Your task to perform on an android device: Open Yahoo.com Image 0: 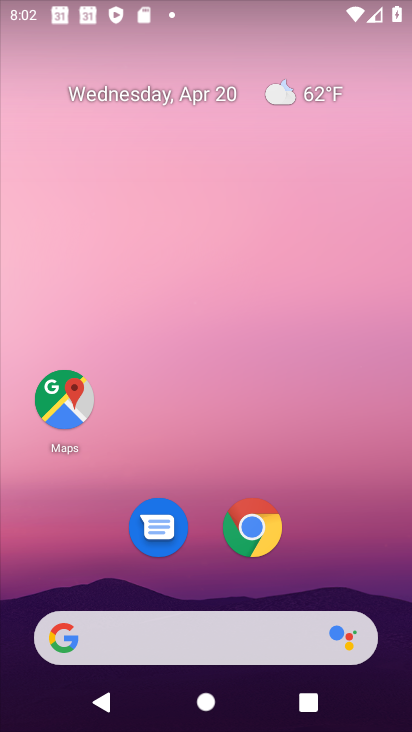
Step 0: click (259, 526)
Your task to perform on an android device: Open Yahoo.com Image 1: 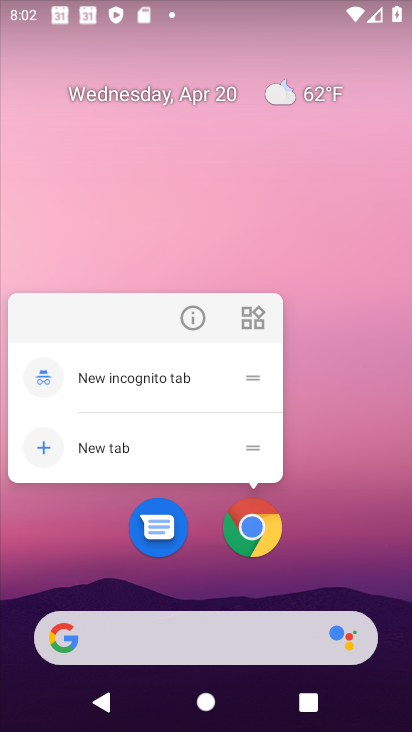
Step 1: click (252, 528)
Your task to perform on an android device: Open Yahoo.com Image 2: 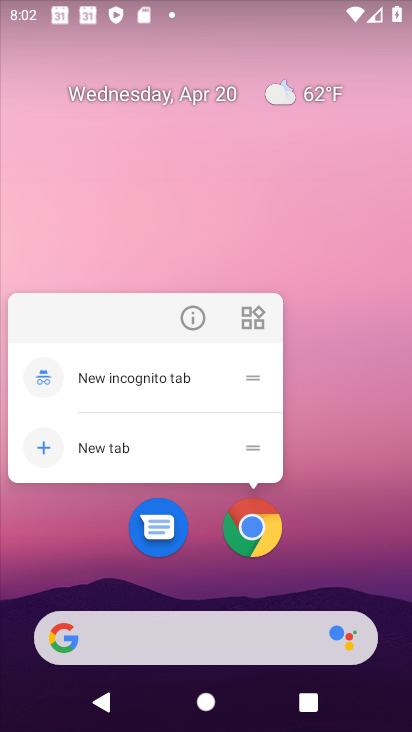
Step 2: click (253, 535)
Your task to perform on an android device: Open Yahoo.com Image 3: 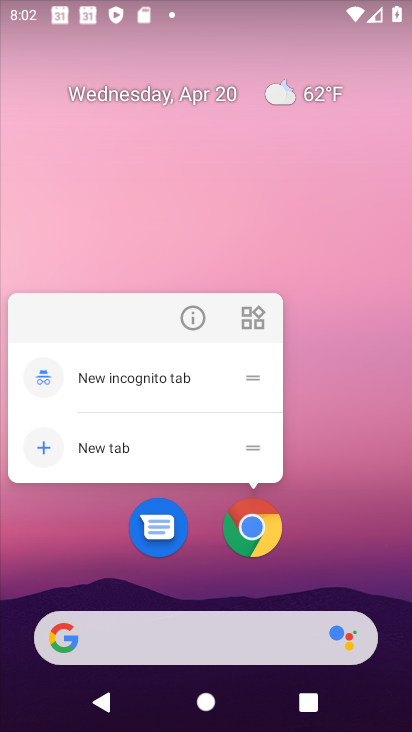
Step 3: click (254, 536)
Your task to perform on an android device: Open Yahoo.com Image 4: 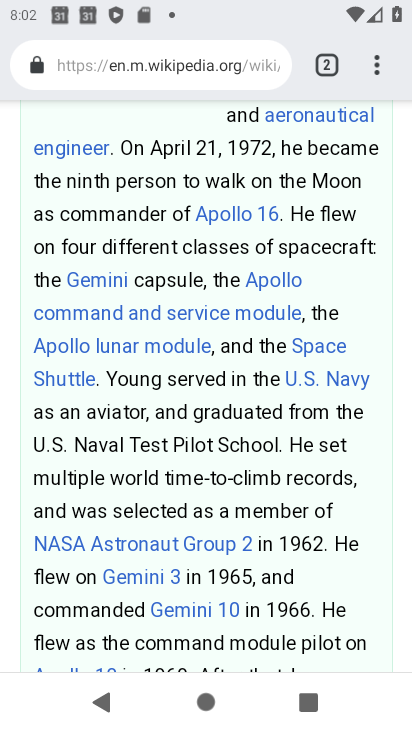
Step 4: click (329, 72)
Your task to perform on an android device: Open Yahoo.com Image 5: 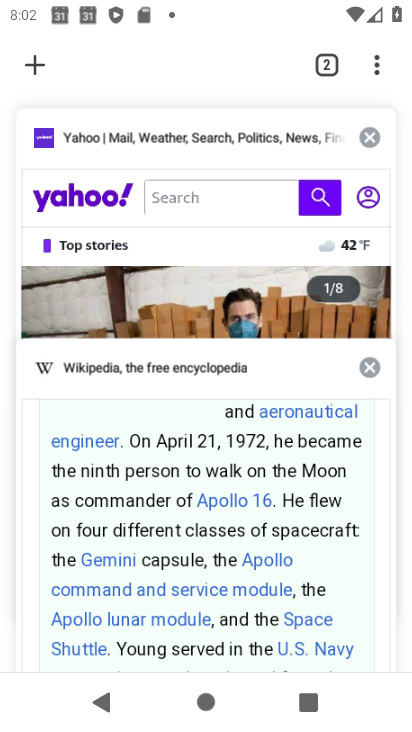
Step 5: click (213, 236)
Your task to perform on an android device: Open Yahoo.com Image 6: 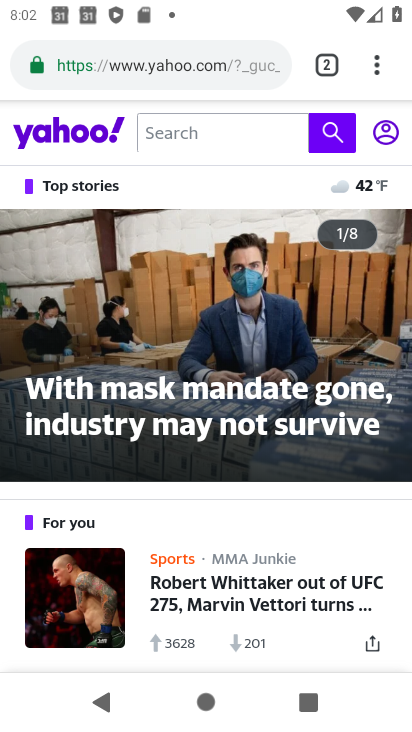
Step 6: task complete